Your task to perform on an android device: turn off smart reply in the gmail app Image 0: 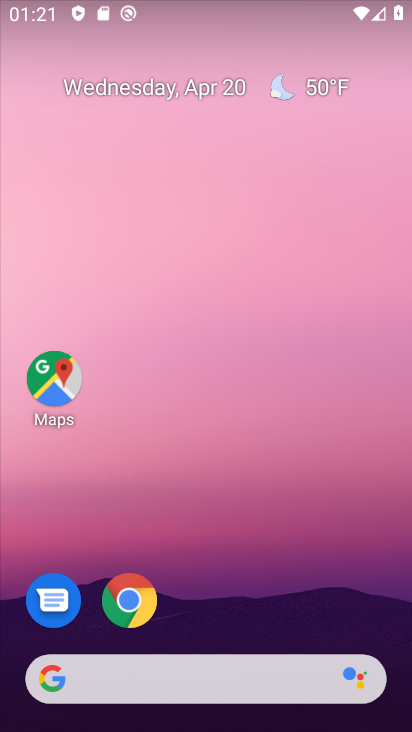
Step 0: drag from (245, 44) to (223, 420)
Your task to perform on an android device: turn off smart reply in the gmail app Image 1: 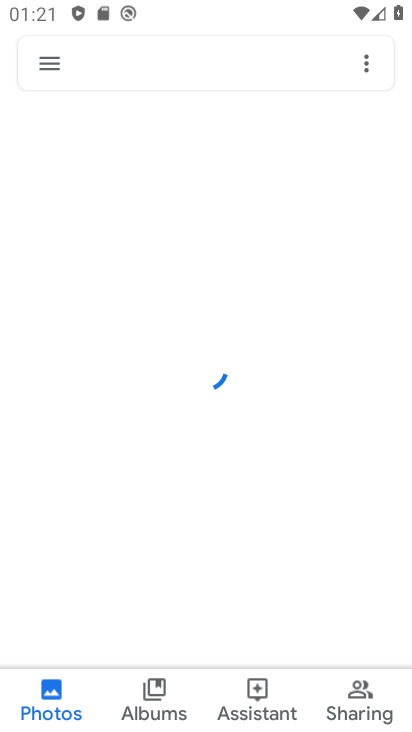
Step 1: task complete